Your task to perform on an android device: change the clock display to digital Image 0: 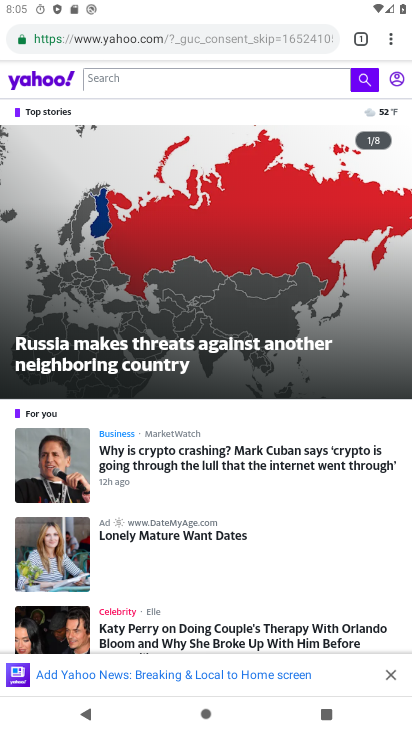
Step 0: press home button
Your task to perform on an android device: change the clock display to digital Image 1: 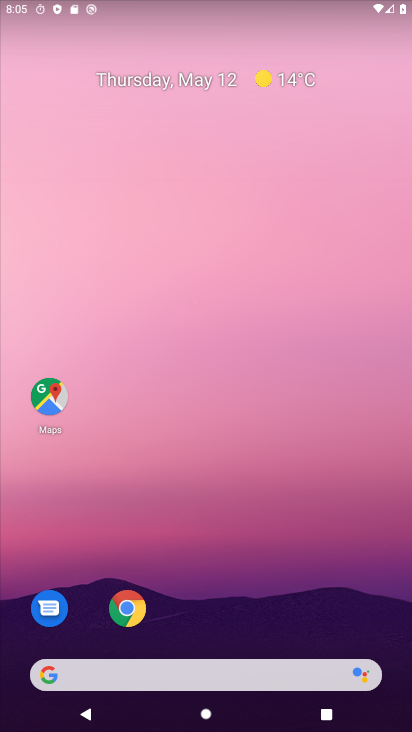
Step 1: drag from (238, 593) to (237, 99)
Your task to perform on an android device: change the clock display to digital Image 2: 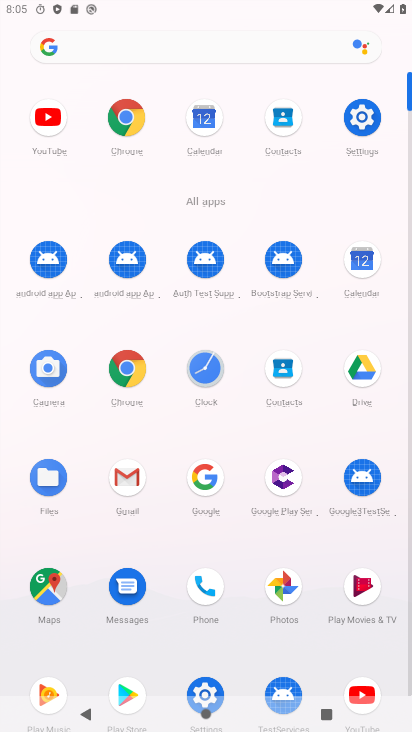
Step 2: click (209, 371)
Your task to perform on an android device: change the clock display to digital Image 3: 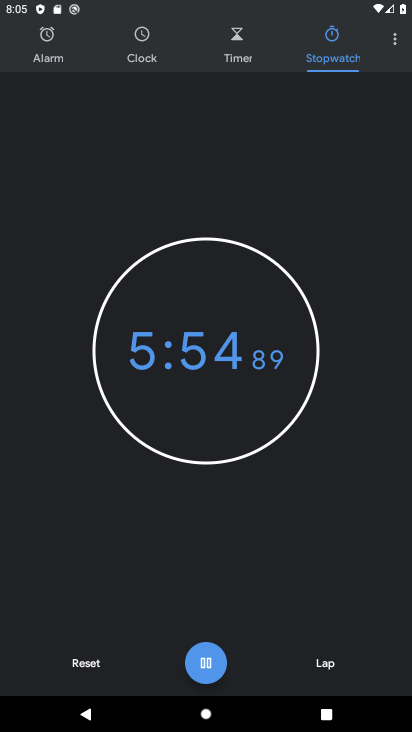
Step 3: click (399, 42)
Your task to perform on an android device: change the clock display to digital Image 4: 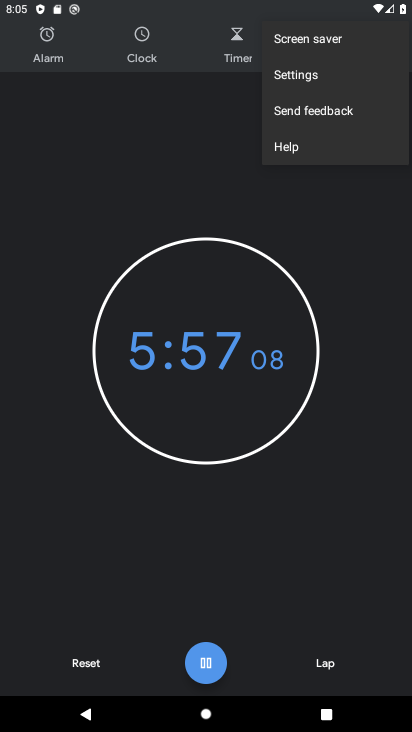
Step 4: click (305, 76)
Your task to perform on an android device: change the clock display to digital Image 5: 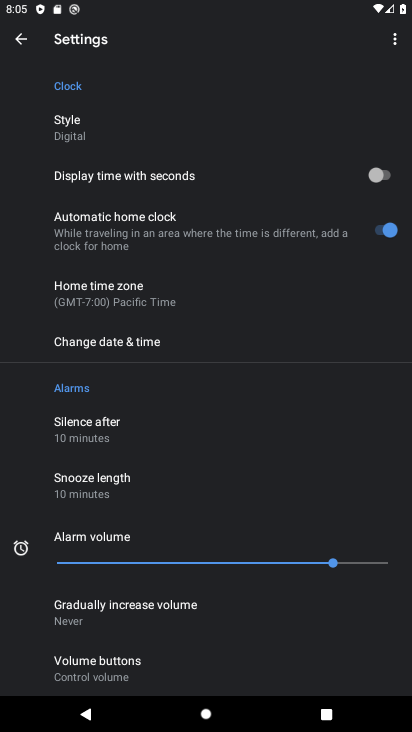
Step 5: click (77, 131)
Your task to perform on an android device: change the clock display to digital Image 6: 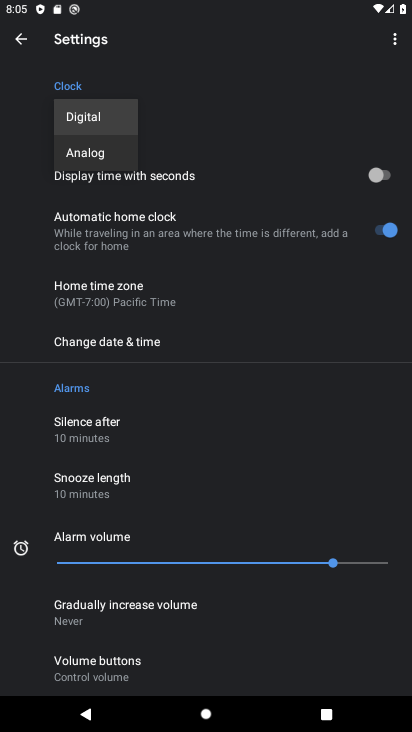
Step 6: click (112, 148)
Your task to perform on an android device: change the clock display to digital Image 7: 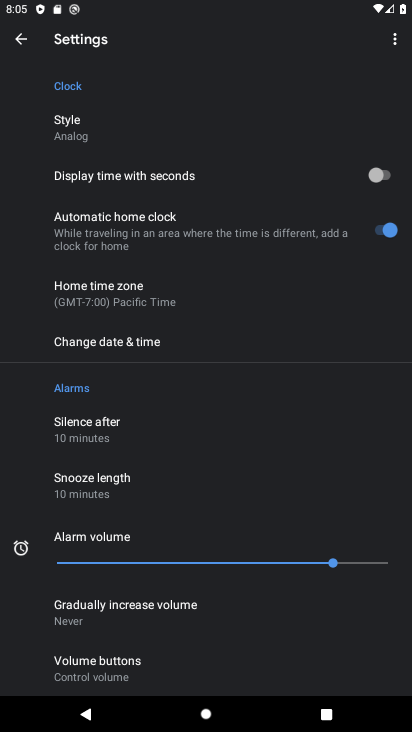
Step 7: task complete